Your task to perform on an android device: Go to Android settings Image 0: 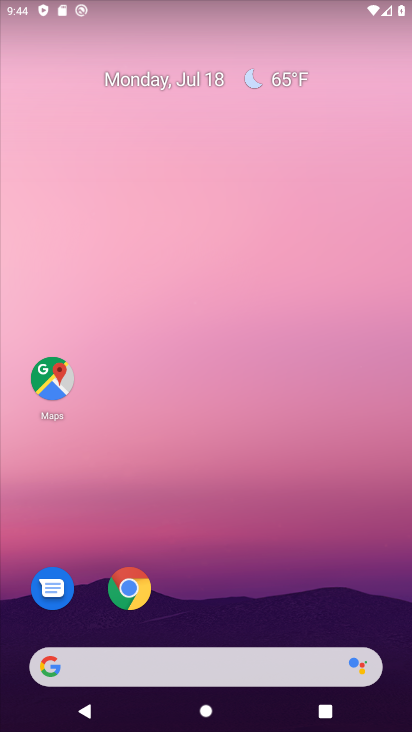
Step 0: drag from (260, 626) to (298, 139)
Your task to perform on an android device: Go to Android settings Image 1: 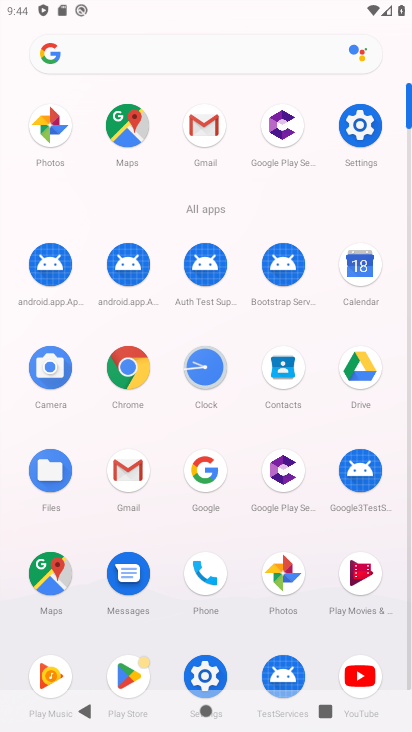
Step 1: click (362, 124)
Your task to perform on an android device: Go to Android settings Image 2: 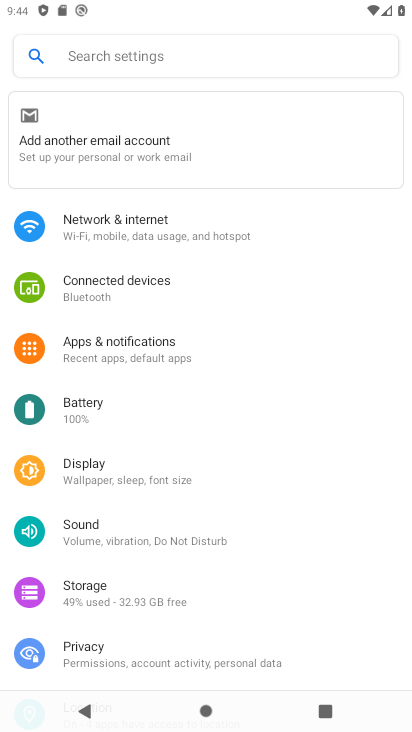
Step 2: task complete